Your task to perform on an android device: open app "Nova Launcher" Image 0: 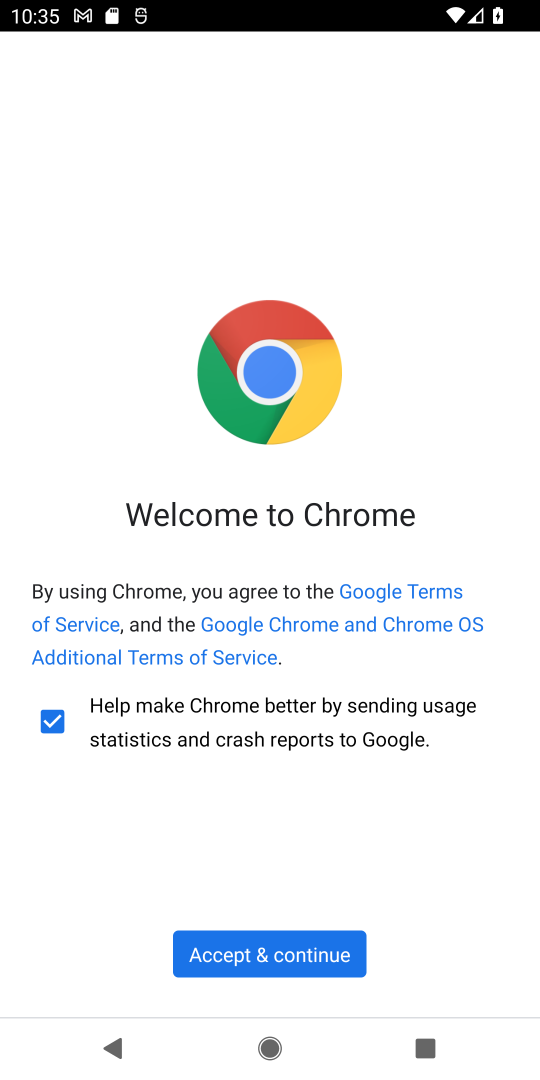
Step 0: press home button
Your task to perform on an android device: open app "Nova Launcher" Image 1: 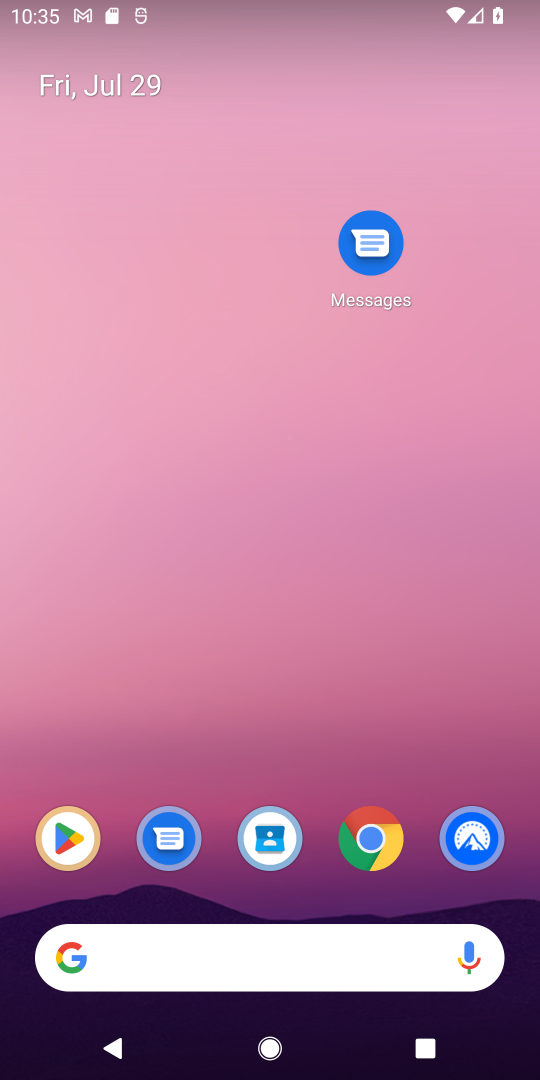
Step 1: click (84, 857)
Your task to perform on an android device: open app "Nova Launcher" Image 2: 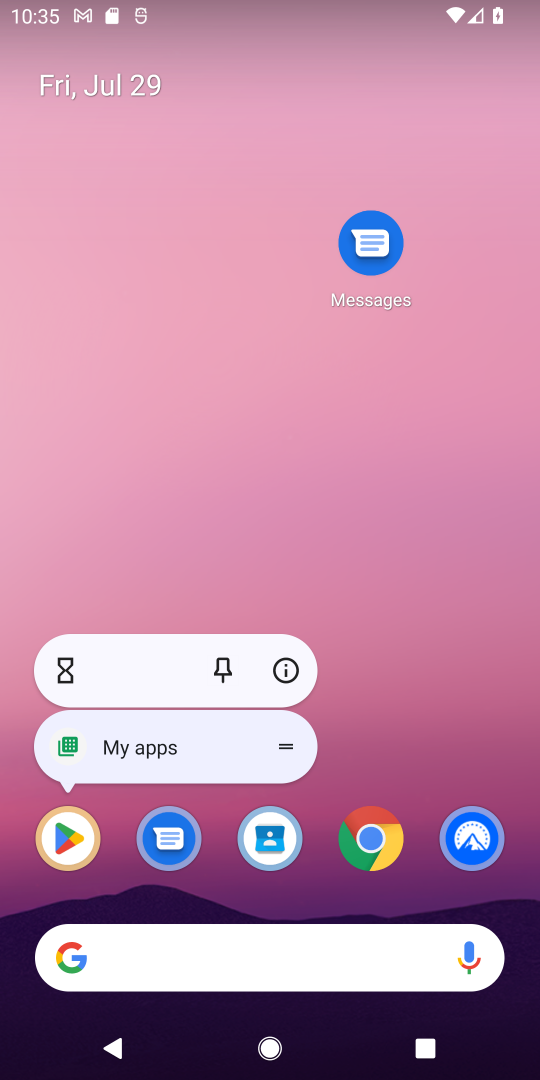
Step 2: click (77, 842)
Your task to perform on an android device: open app "Nova Launcher" Image 3: 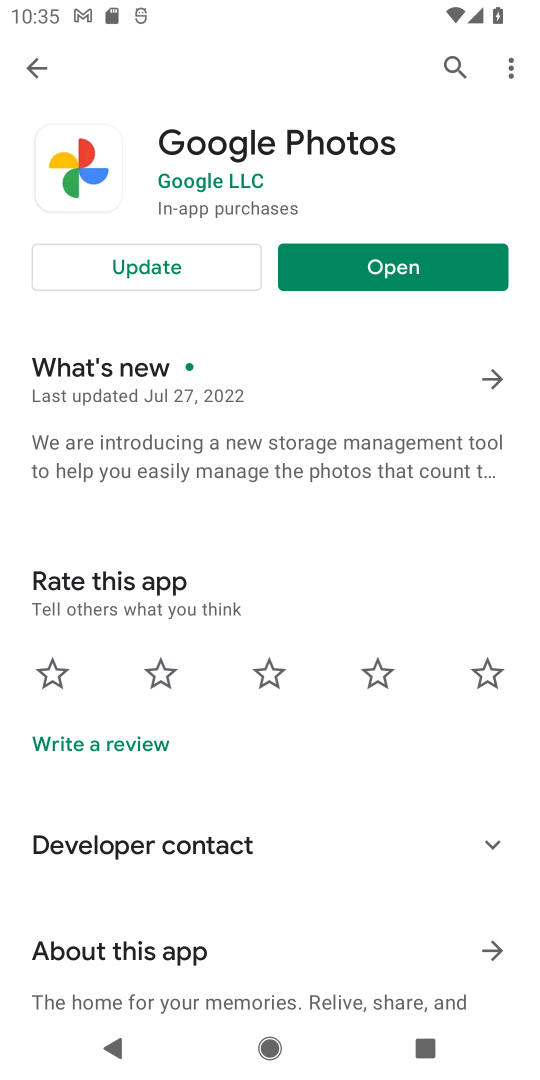
Step 3: click (41, 67)
Your task to perform on an android device: open app "Nova Launcher" Image 4: 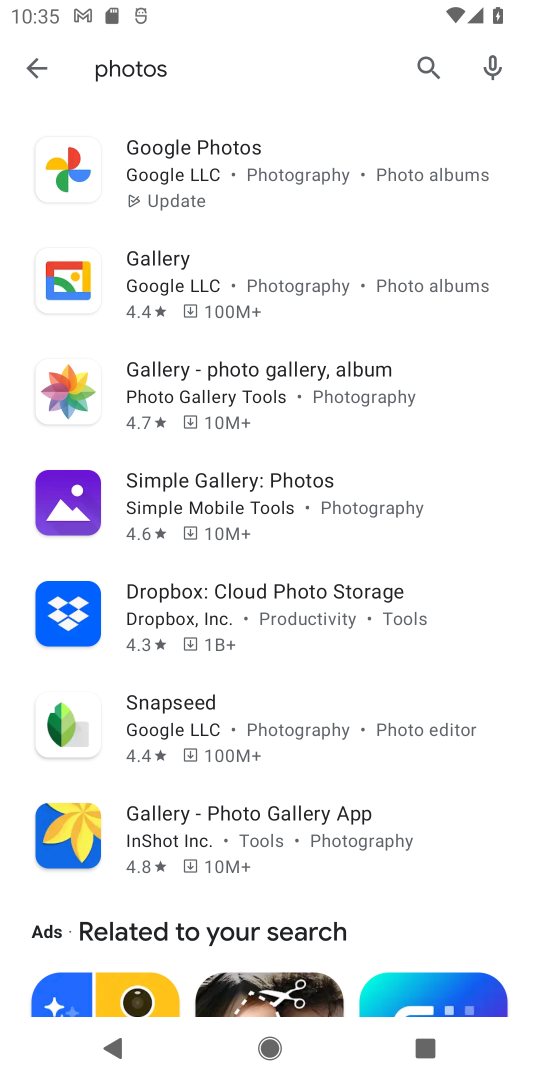
Step 4: click (219, 68)
Your task to perform on an android device: open app "Nova Launcher" Image 5: 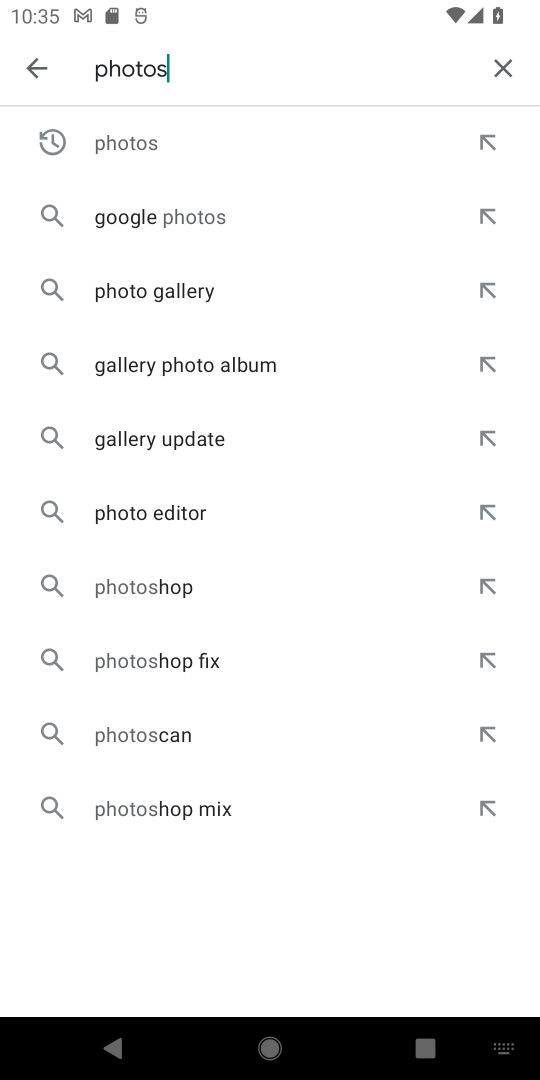
Step 5: click (507, 62)
Your task to perform on an android device: open app "Nova Launcher" Image 6: 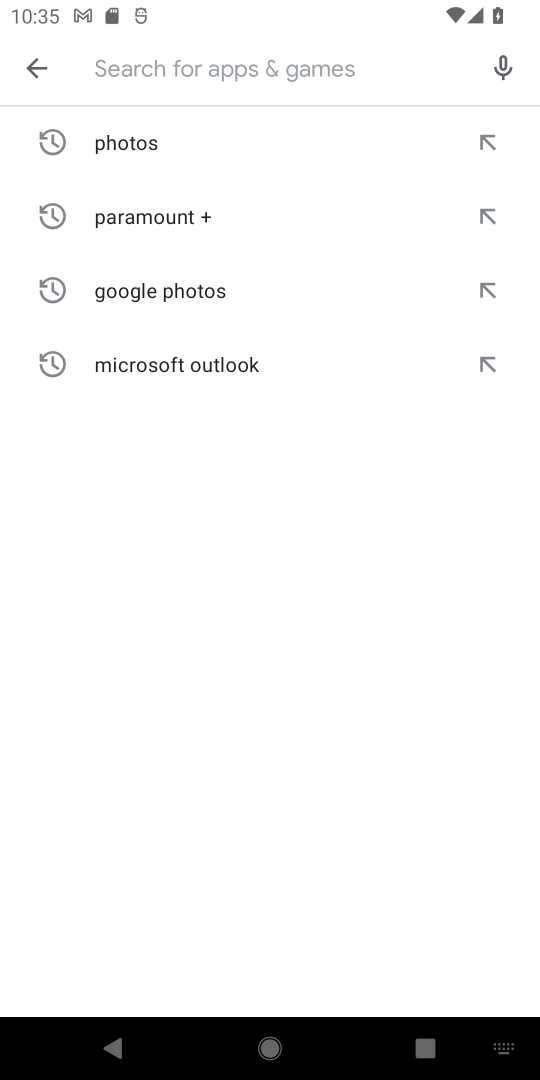
Step 6: type "Nova launcher"
Your task to perform on an android device: open app "Nova Launcher" Image 7: 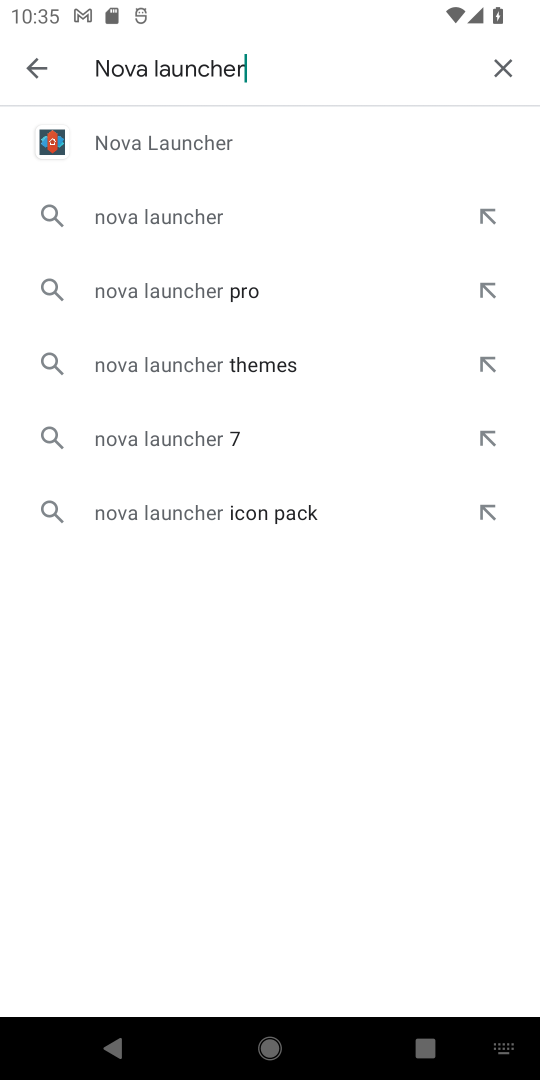
Step 7: click (196, 149)
Your task to perform on an android device: open app "Nova Launcher" Image 8: 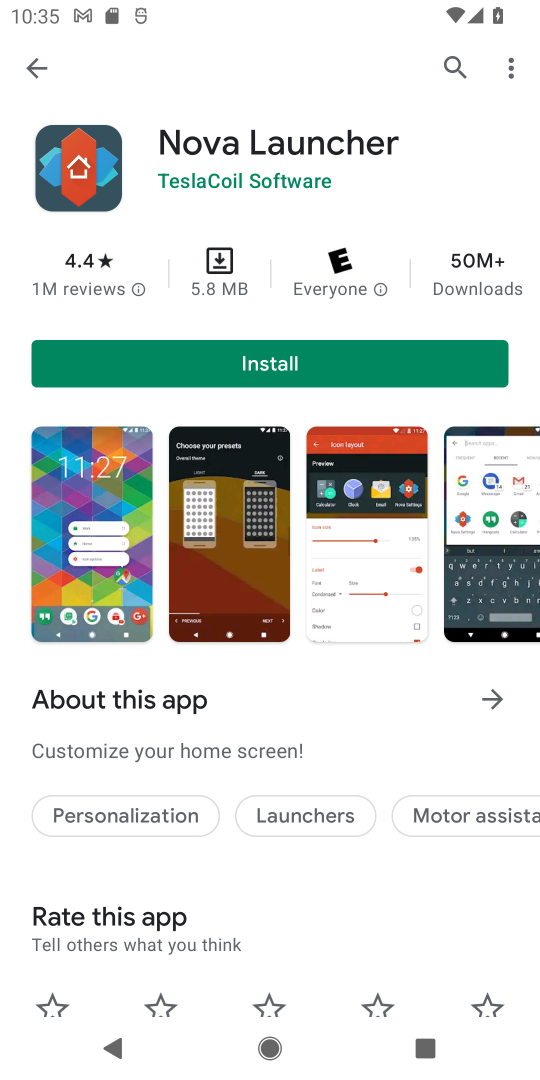
Step 8: click (182, 377)
Your task to perform on an android device: open app "Nova Launcher" Image 9: 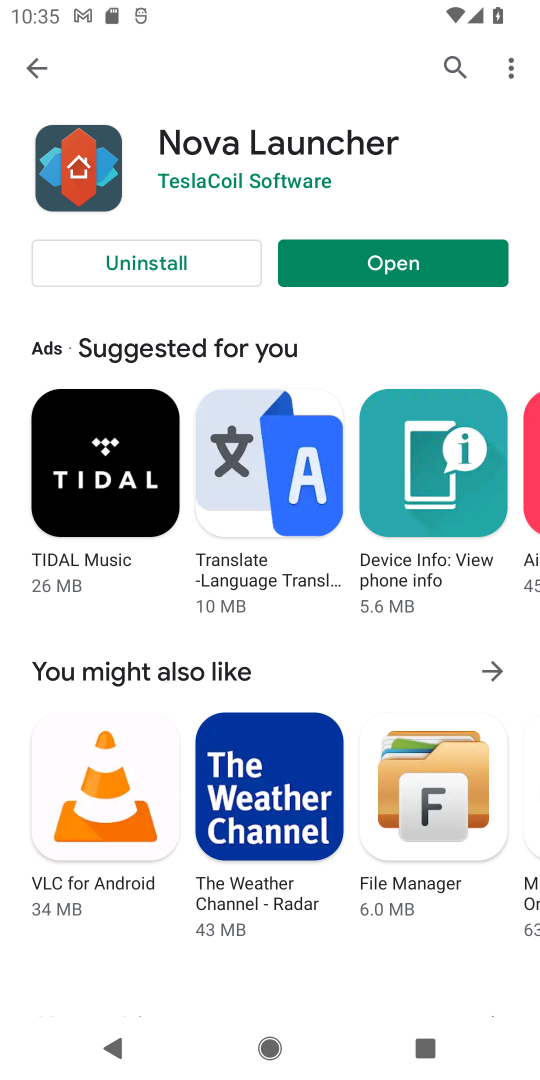
Step 9: click (400, 251)
Your task to perform on an android device: open app "Nova Launcher" Image 10: 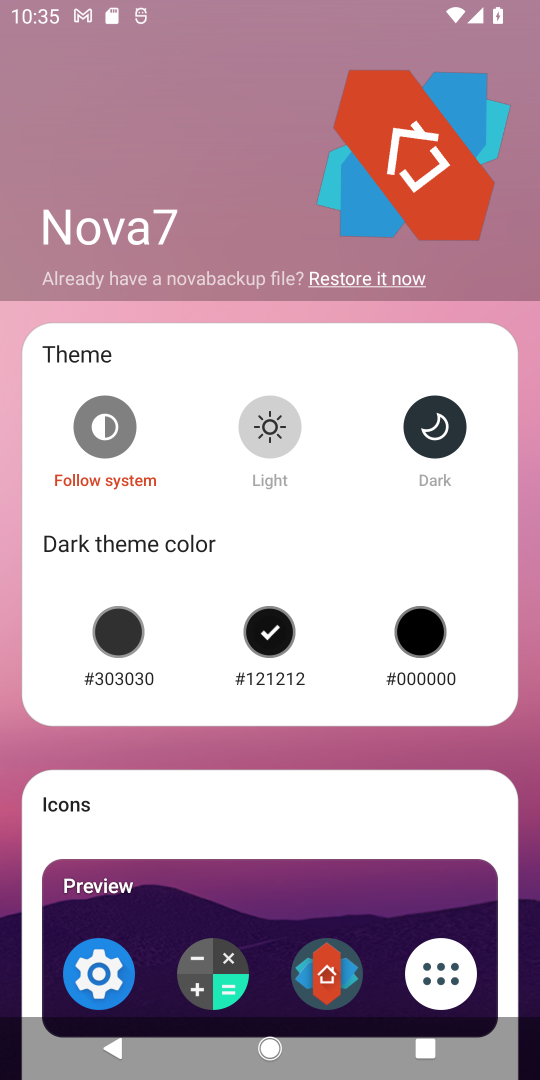
Step 10: task complete